Your task to perform on an android device: Turn off the flashlight Image 0: 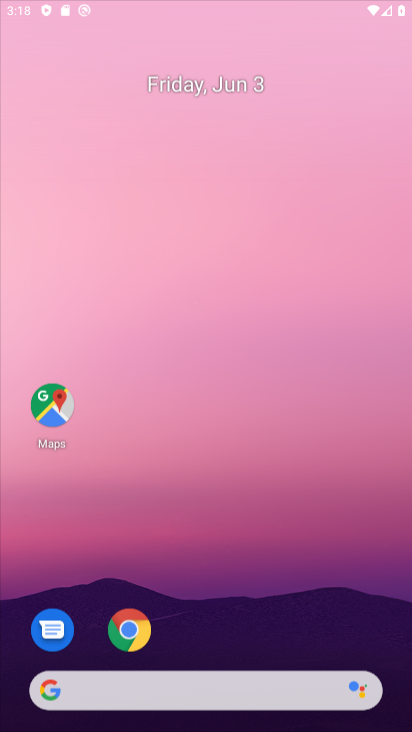
Step 0: drag from (280, 695) to (214, 125)
Your task to perform on an android device: Turn off the flashlight Image 1: 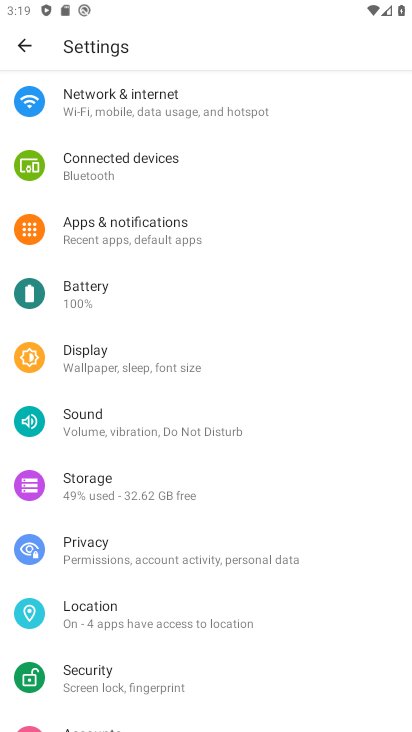
Step 1: task complete